Your task to perform on an android device: Search for seafood restaurants on Google Maps Image 0: 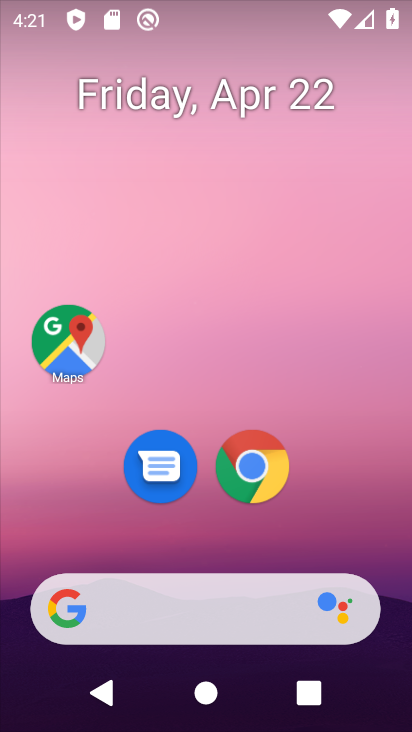
Step 0: click (83, 345)
Your task to perform on an android device: Search for seafood restaurants on Google Maps Image 1: 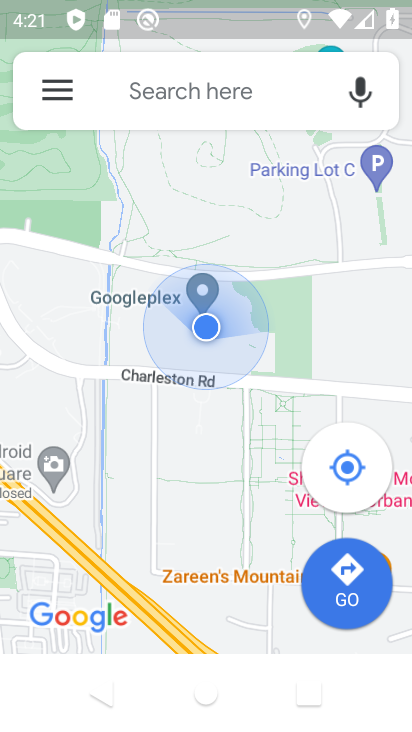
Step 1: click (199, 104)
Your task to perform on an android device: Search for seafood restaurants on Google Maps Image 2: 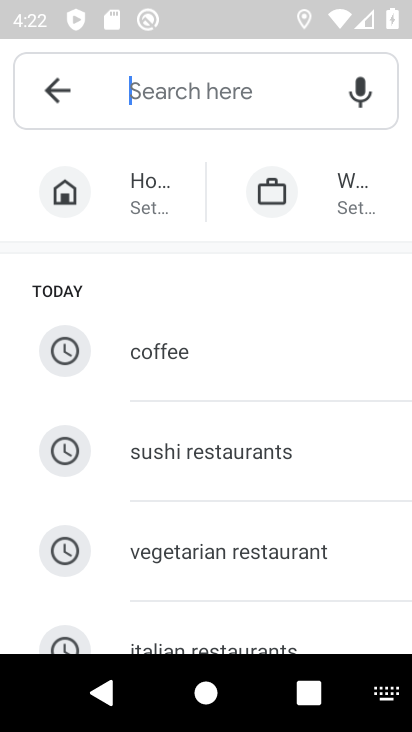
Step 2: drag from (223, 601) to (239, 250)
Your task to perform on an android device: Search for seafood restaurants on Google Maps Image 3: 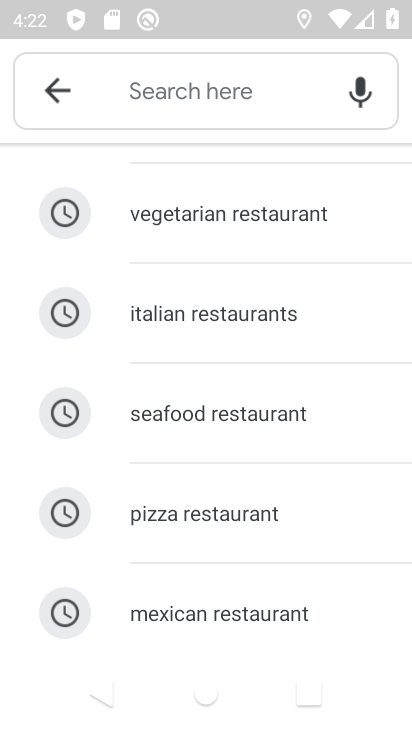
Step 3: click (240, 421)
Your task to perform on an android device: Search for seafood restaurants on Google Maps Image 4: 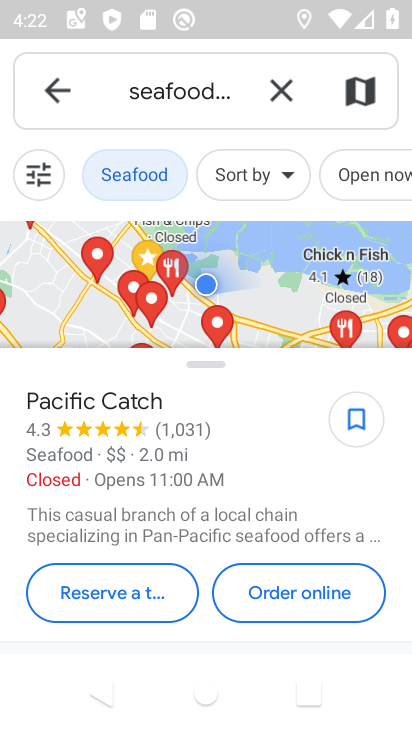
Step 4: task complete